Your task to perform on an android device: open chrome privacy settings Image 0: 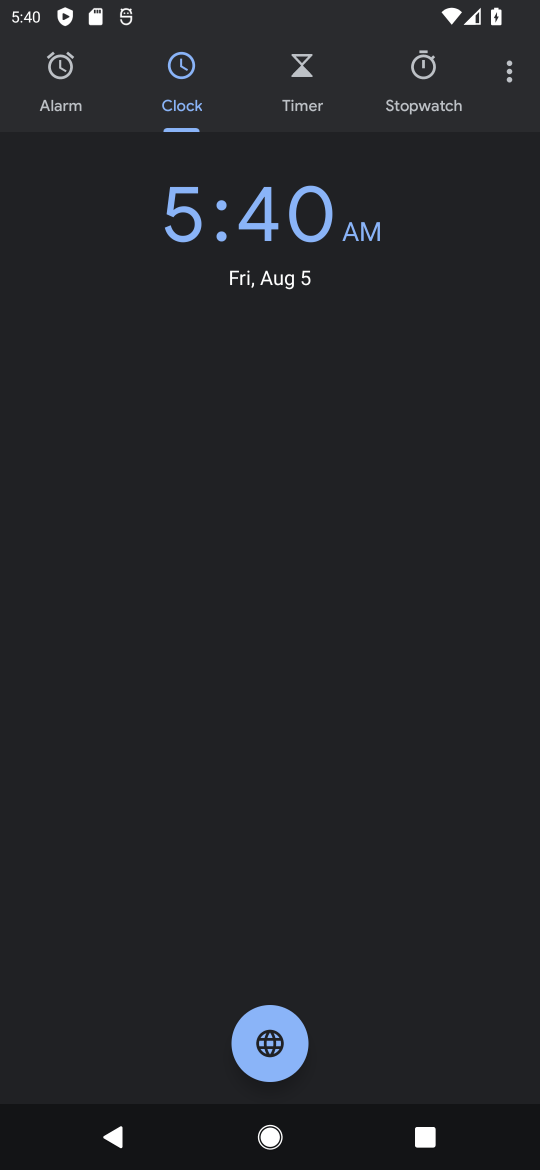
Step 0: press home button
Your task to perform on an android device: open chrome privacy settings Image 1: 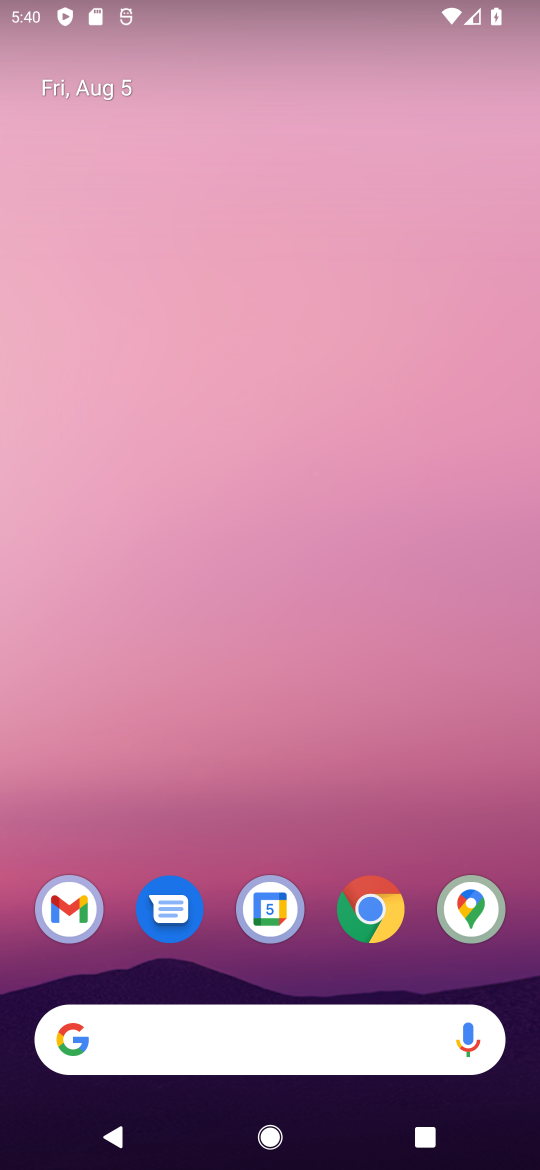
Step 1: click (358, 905)
Your task to perform on an android device: open chrome privacy settings Image 2: 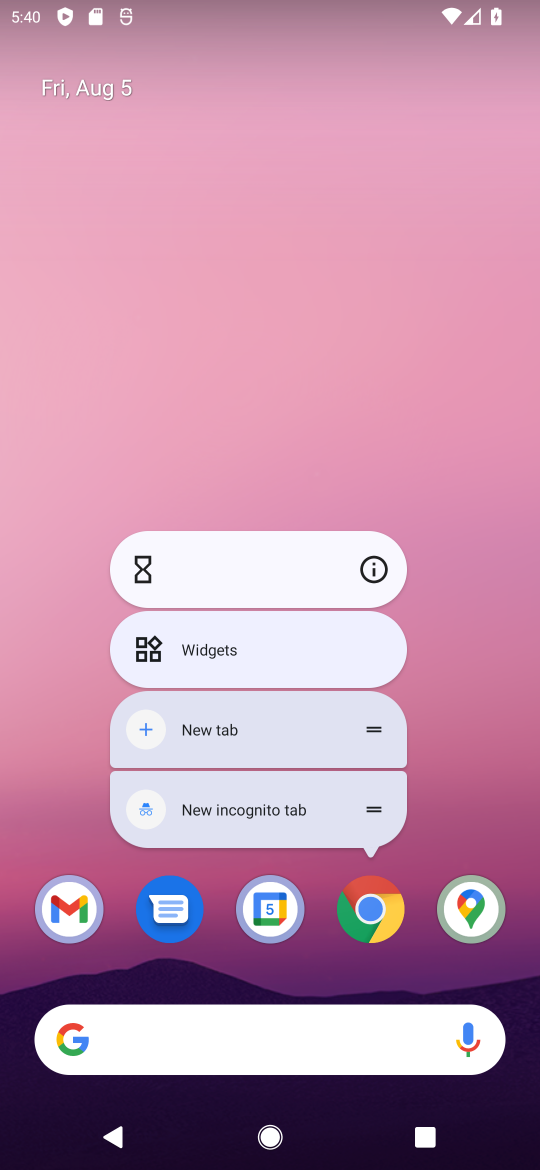
Step 2: click (358, 905)
Your task to perform on an android device: open chrome privacy settings Image 3: 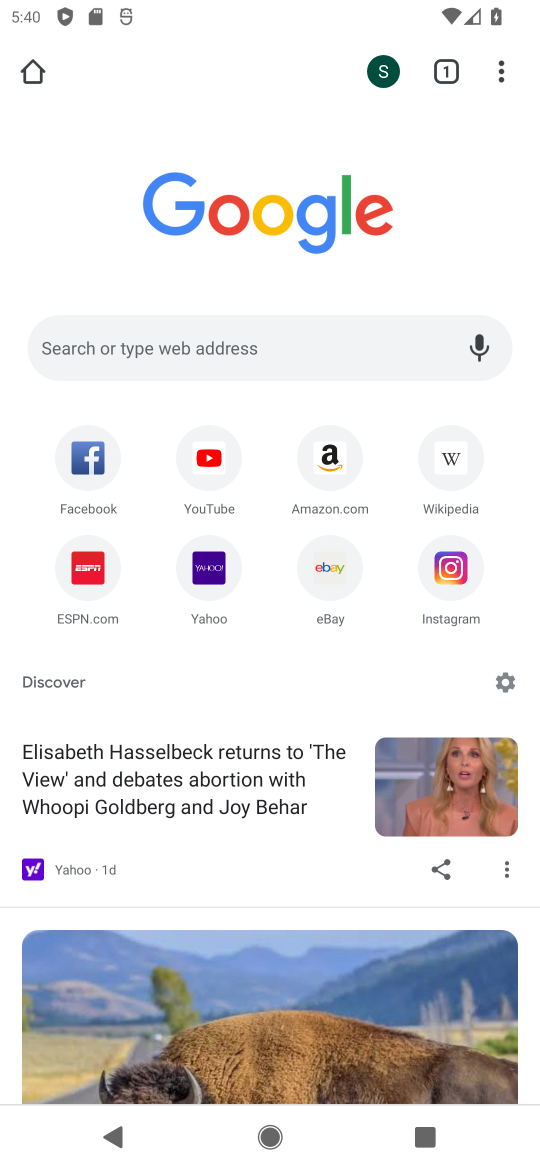
Step 3: drag from (511, 62) to (290, 650)
Your task to perform on an android device: open chrome privacy settings Image 4: 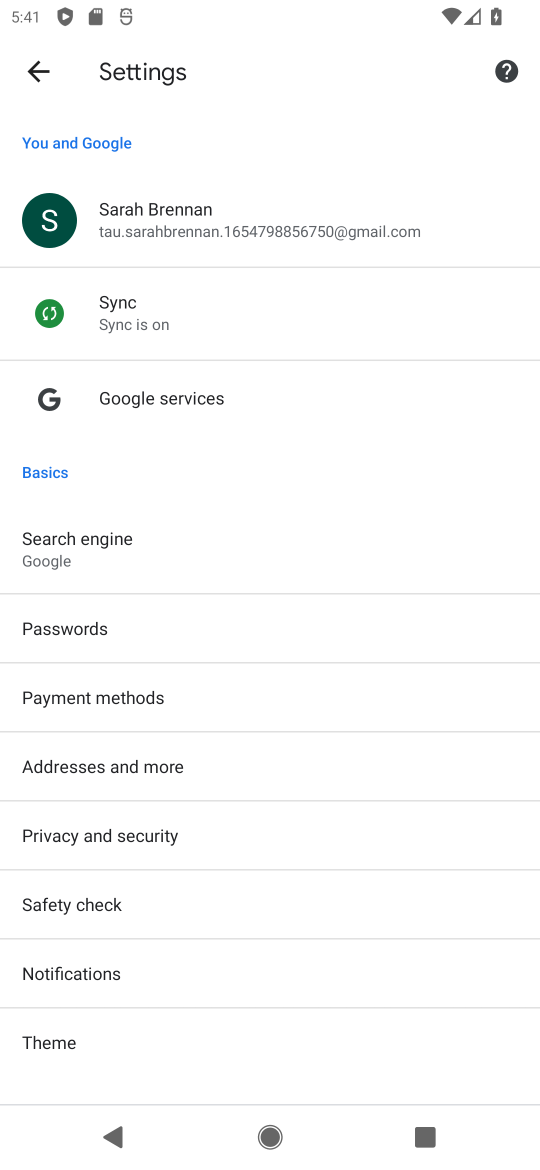
Step 4: click (134, 846)
Your task to perform on an android device: open chrome privacy settings Image 5: 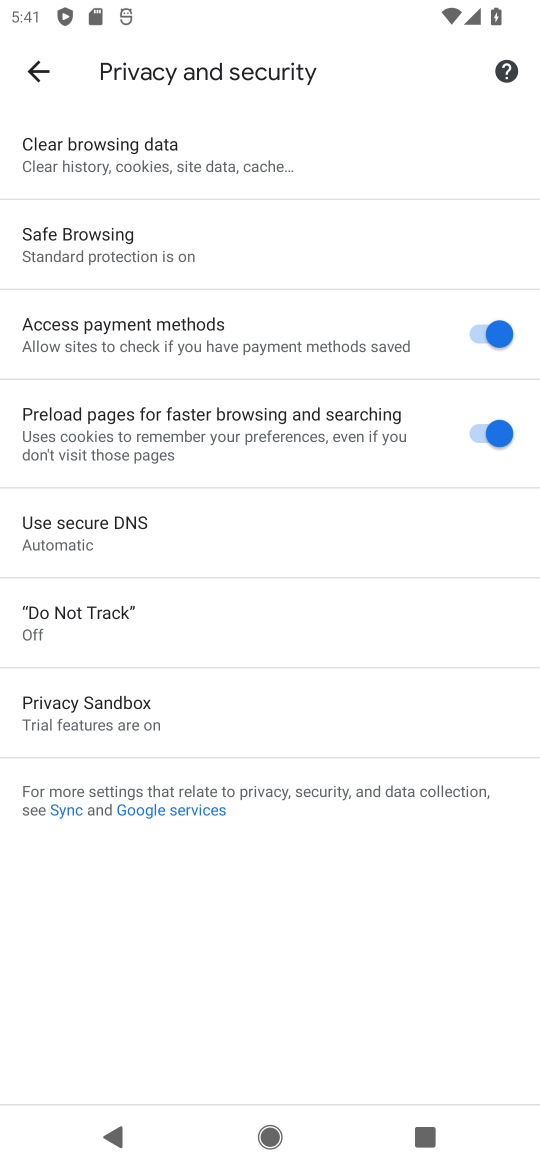
Step 5: task complete